Your task to perform on an android device: When is my next meeting? Image 0: 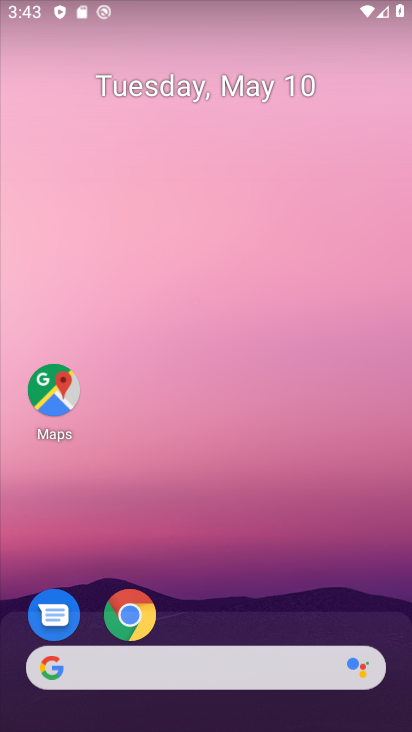
Step 0: drag from (226, 713) to (224, 200)
Your task to perform on an android device: When is my next meeting? Image 1: 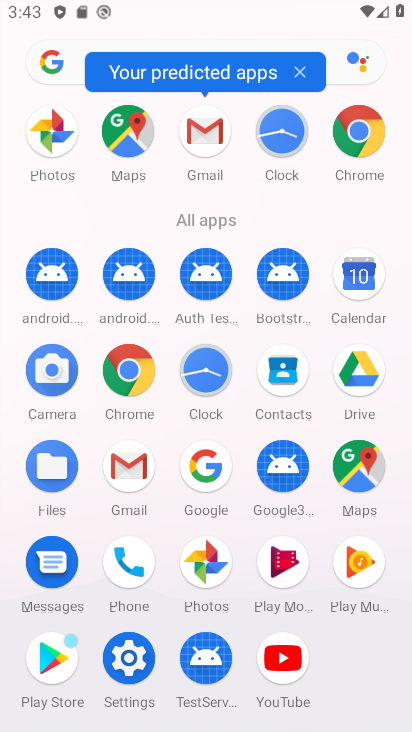
Step 1: click (362, 279)
Your task to perform on an android device: When is my next meeting? Image 2: 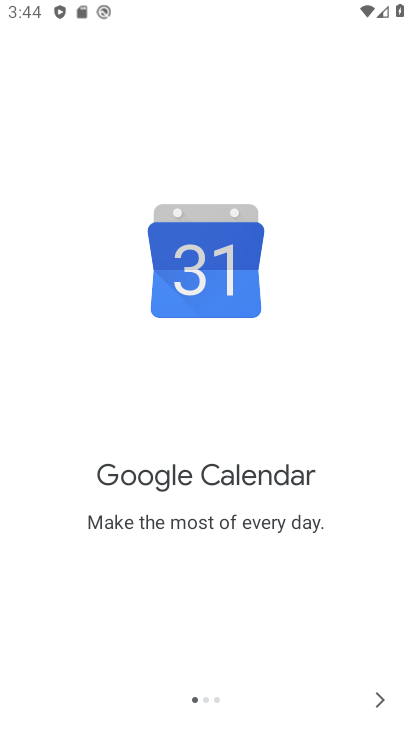
Step 2: click (376, 696)
Your task to perform on an android device: When is my next meeting? Image 3: 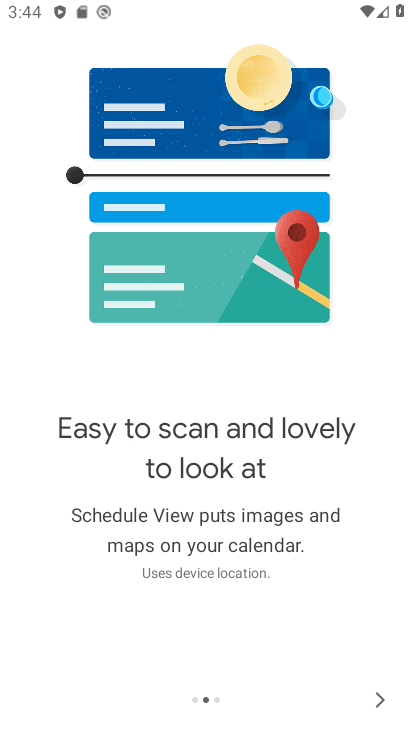
Step 3: click (381, 697)
Your task to perform on an android device: When is my next meeting? Image 4: 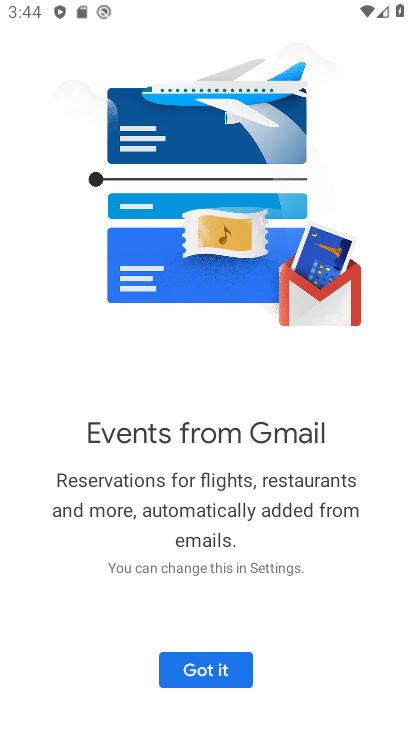
Step 4: click (192, 663)
Your task to perform on an android device: When is my next meeting? Image 5: 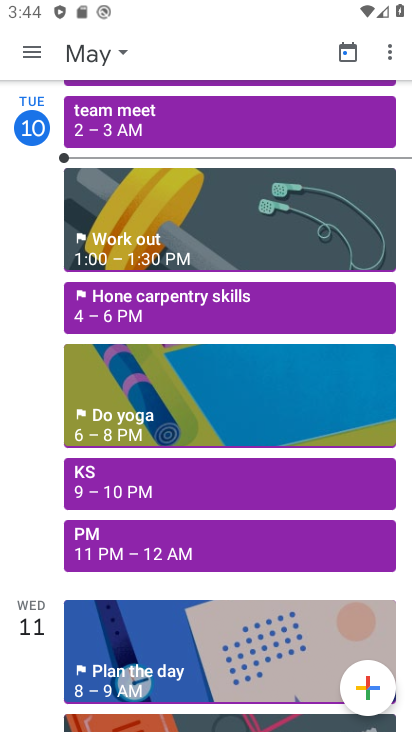
Step 5: click (91, 52)
Your task to perform on an android device: When is my next meeting? Image 6: 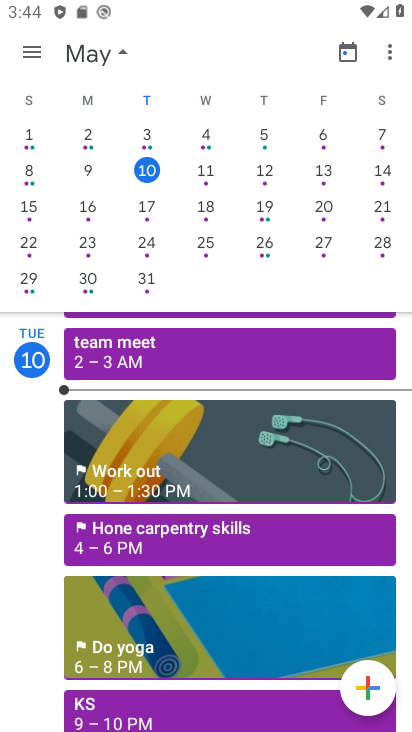
Step 6: click (201, 167)
Your task to perform on an android device: When is my next meeting? Image 7: 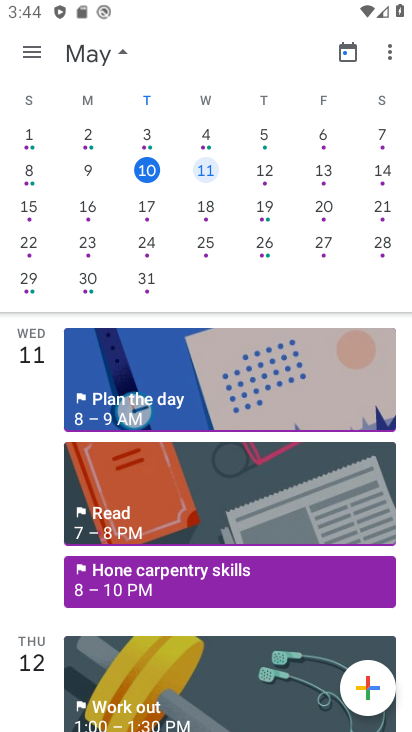
Step 7: click (198, 164)
Your task to perform on an android device: When is my next meeting? Image 8: 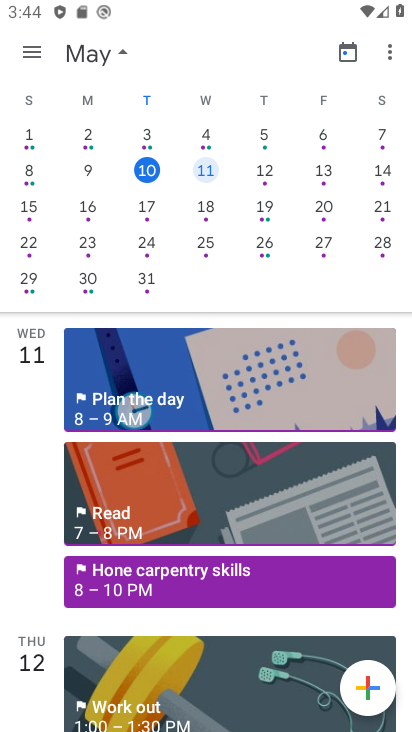
Step 8: task complete